Your task to perform on an android device: Set the phone to "Do not disturb". Image 0: 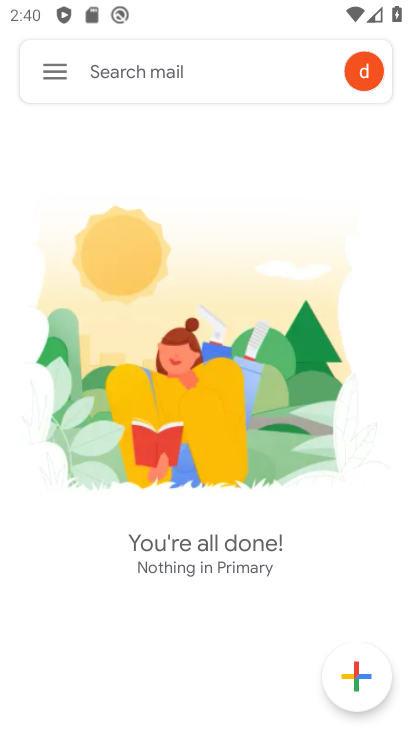
Step 0: drag from (172, 0) to (143, 507)
Your task to perform on an android device: Set the phone to "Do not disturb". Image 1: 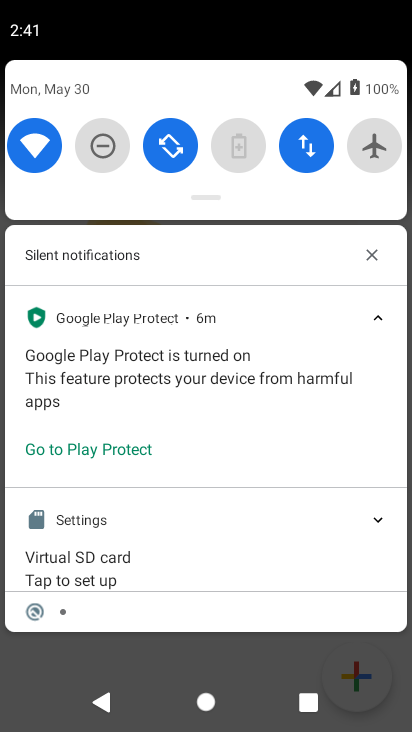
Step 1: click (107, 138)
Your task to perform on an android device: Set the phone to "Do not disturb". Image 2: 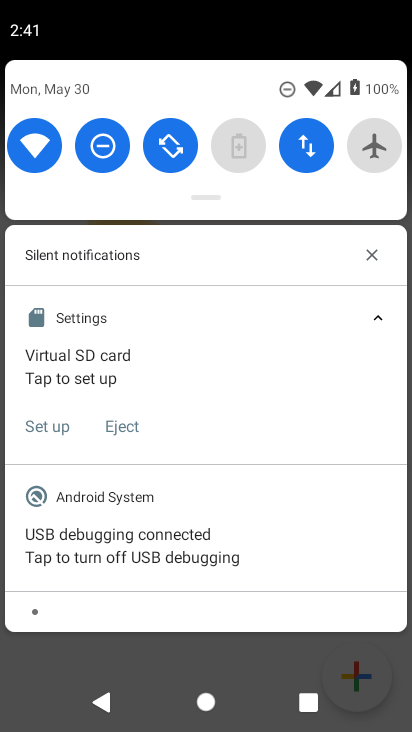
Step 2: task complete